Your task to perform on an android device: Open Google Chrome and click the shortcut for Amazon.com Image 0: 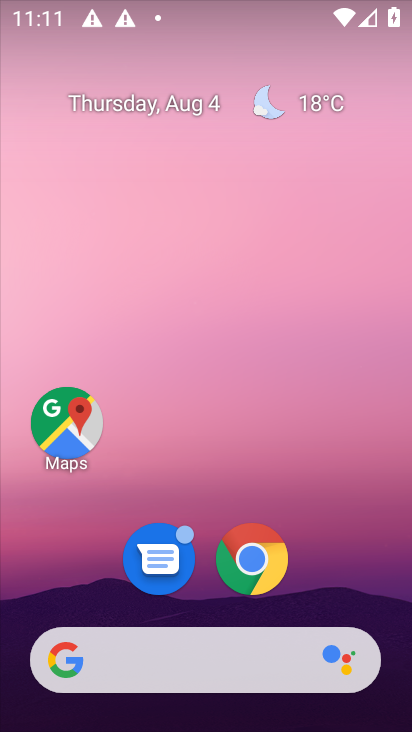
Step 0: click (255, 576)
Your task to perform on an android device: Open Google Chrome and click the shortcut for Amazon.com Image 1: 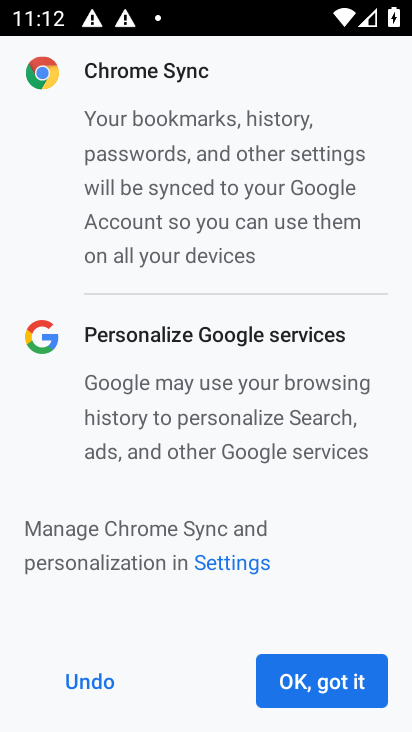
Step 1: click (307, 671)
Your task to perform on an android device: Open Google Chrome and click the shortcut for Amazon.com Image 2: 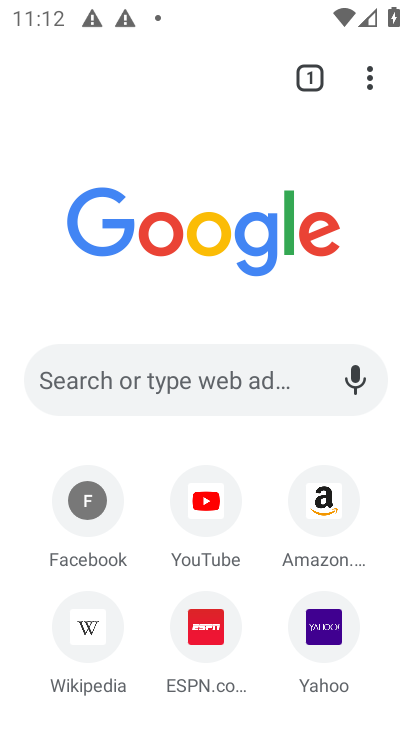
Step 2: click (306, 491)
Your task to perform on an android device: Open Google Chrome and click the shortcut for Amazon.com Image 3: 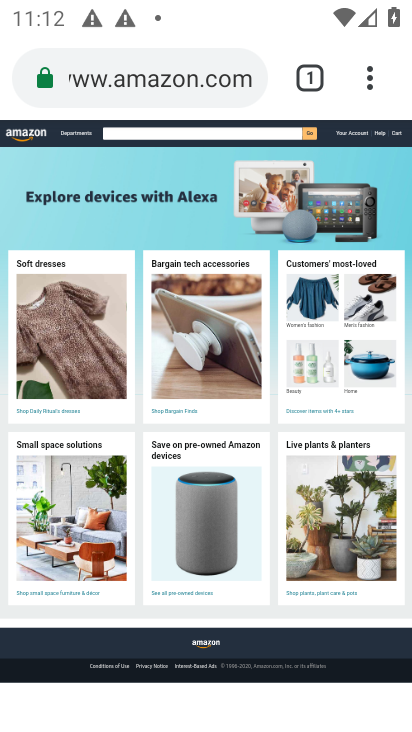
Step 3: task complete